Your task to perform on an android device: Search for amazon basics triple a on bestbuy, select the first entry, and add it to the cart. Image 0: 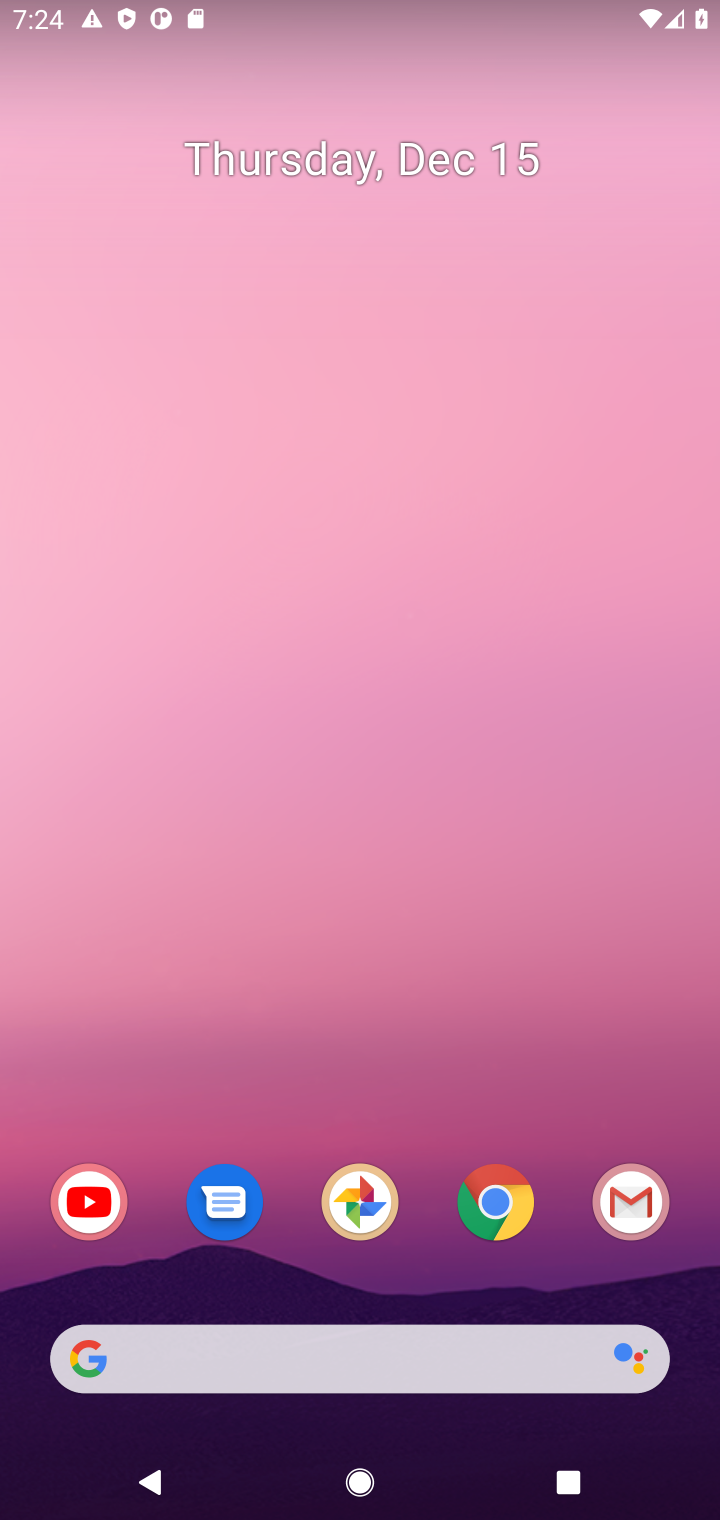
Step 0: click (518, 1208)
Your task to perform on an android device: Search for amazon basics triple a on bestbuy, select the first entry, and add it to the cart. Image 1: 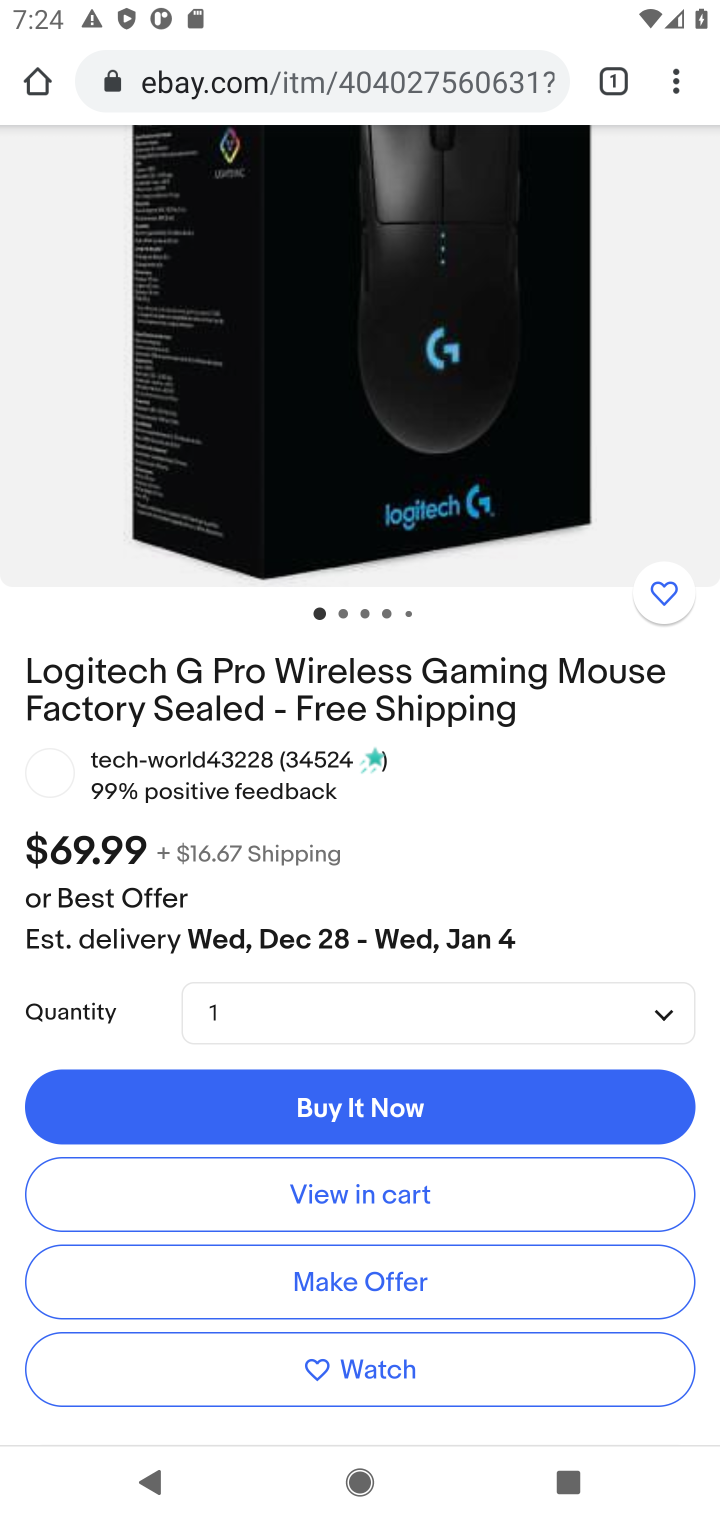
Step 1: click (254, 75)
Your task to perform on an android device: Search for amazon basics triple a on bestbuy, select the first entry, and add it to the cart. Image 2: 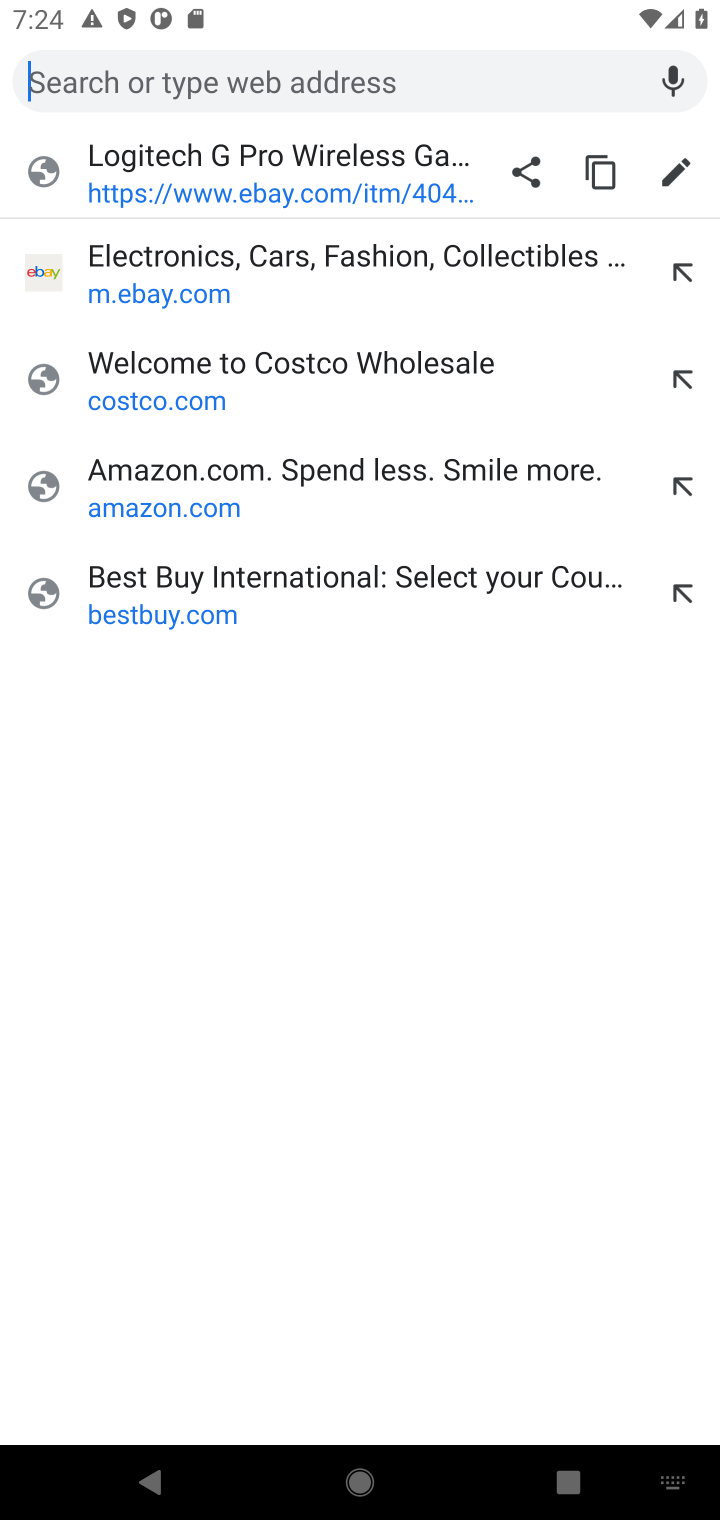
Step 2: click (130, 598)
Your task to perform on an android device: Search for amazon basics triple a on bestbuy, select the first entry, and add it to the cart. Image 3: 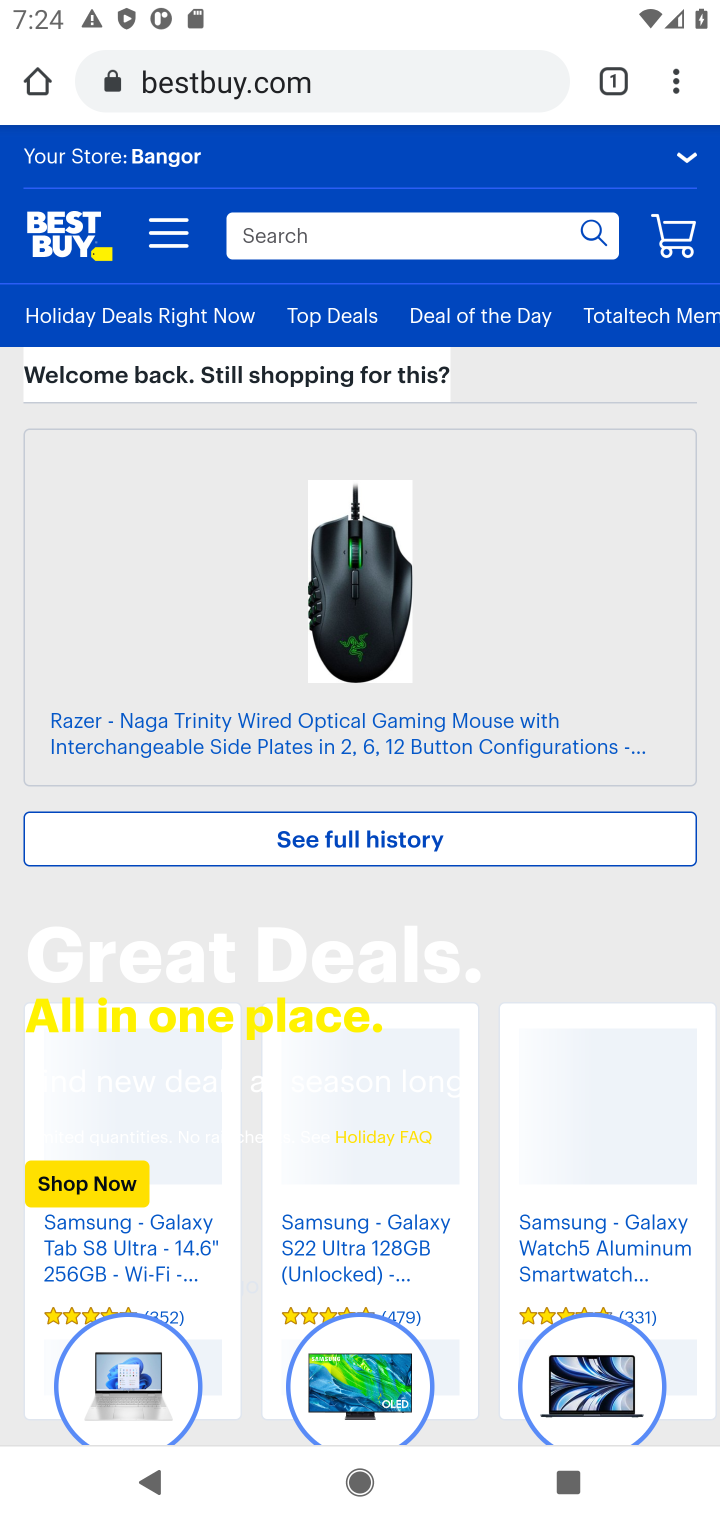
Step 3: click (278, 240)
Your task to perform on an android device: Search for amazon basics triple a on bestbuy, select the first entry, and add it to the cart. Image 4: 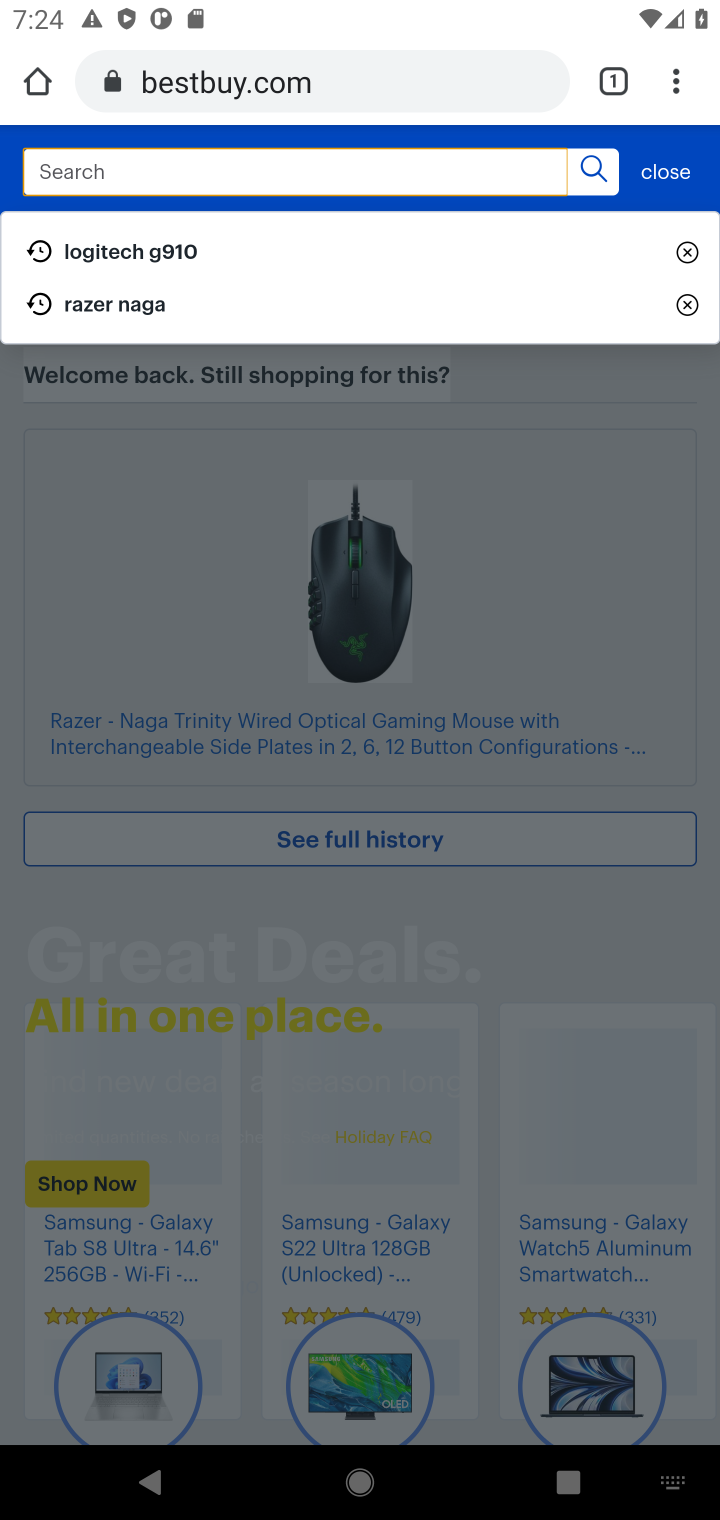
Step 4: type "amazon basics triple a "
Your task to perform on an android device: Search for amazon basics triple a on bestbuy, select the first entry, and add it to the cart. Image 5: 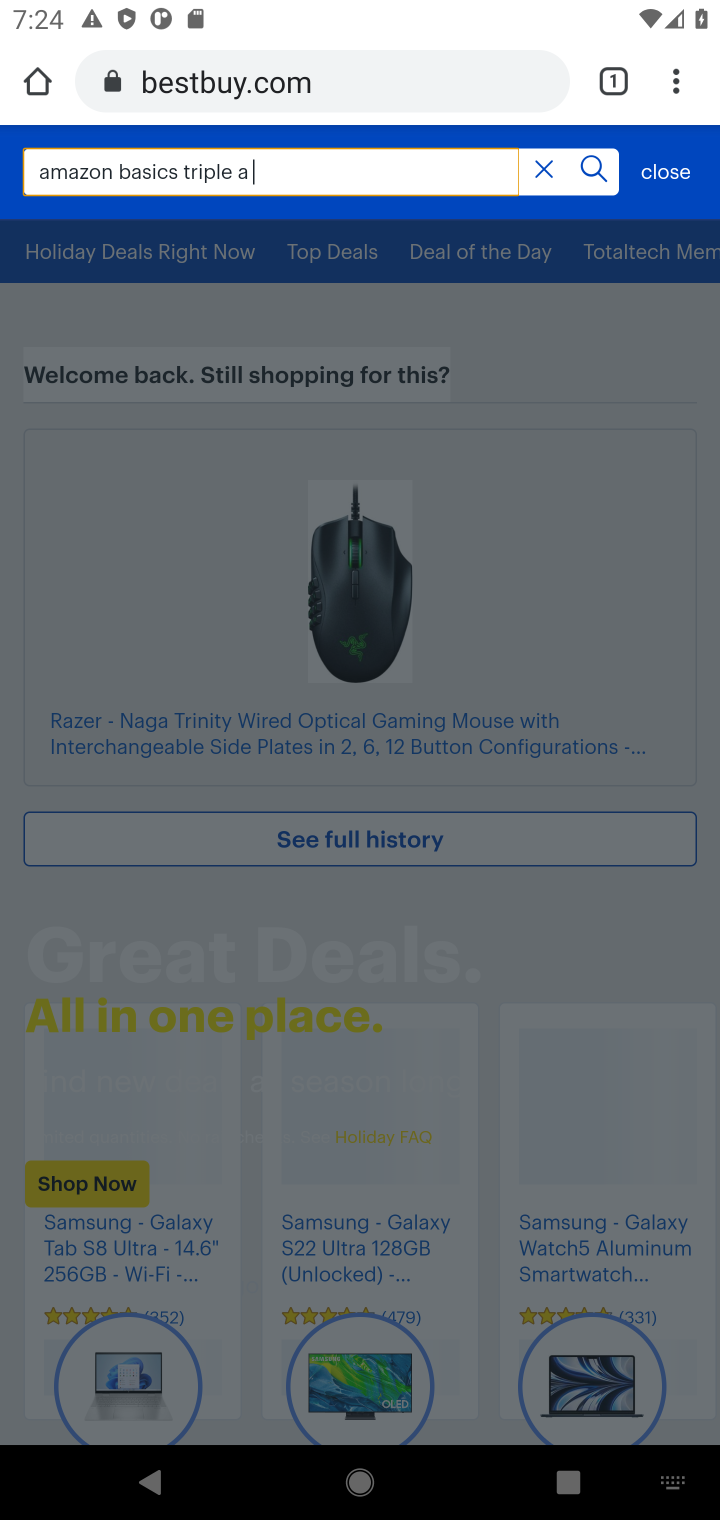
Step 5: click (600, 166)
Your task to perform on an android device: Search for amazon basics triple a on bestbuy, select the first entry, and add it to the cart. Image 6: 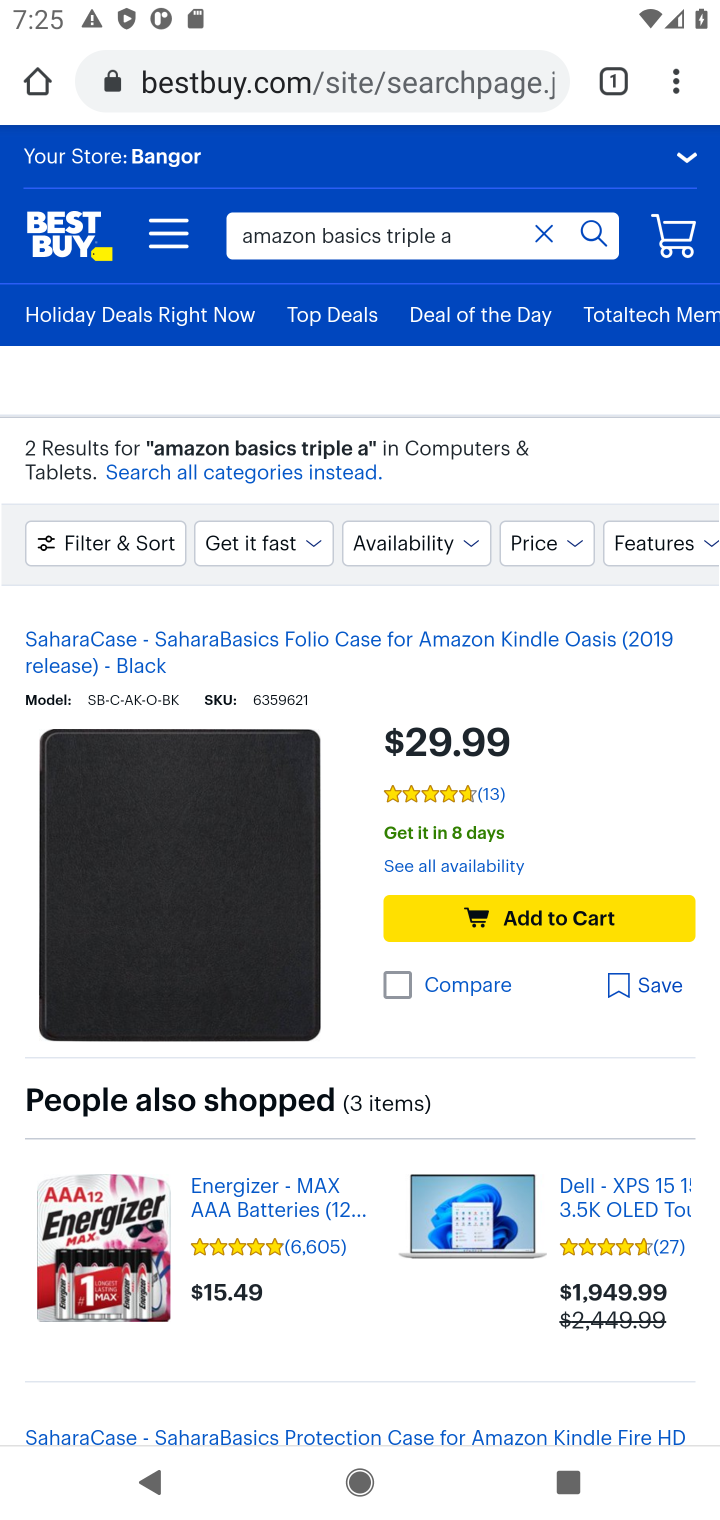
Step 6: task complete